Your task to perform on an android device: Open Google Chrome Image 0: 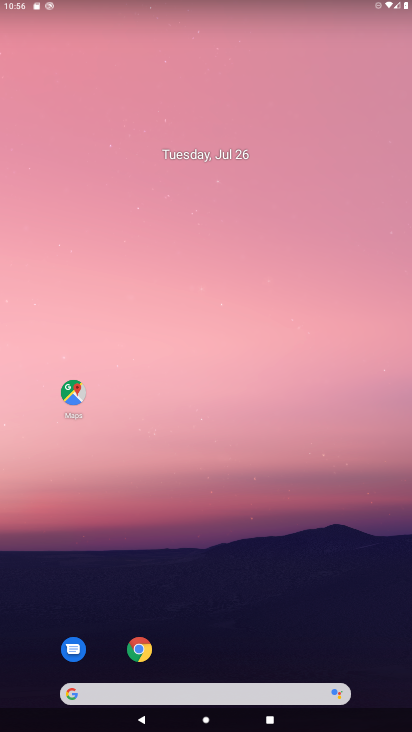
Step 0: click (126, 654)
Your task to perform on an android device: Open Google Chrome Image 1: 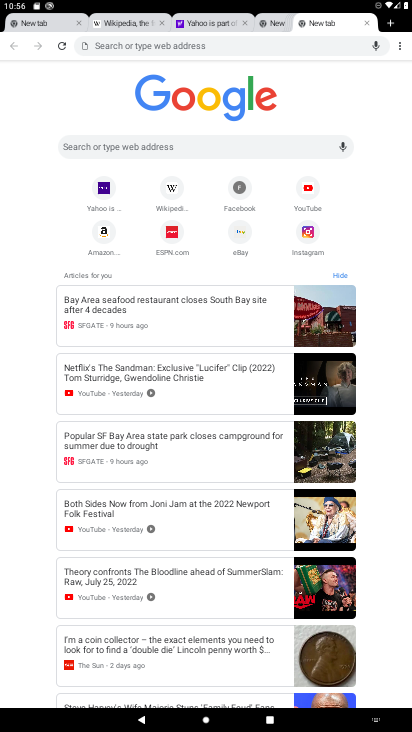
Step 1: task complete